Your task to perform on an android device: change your default location settings in chrome Image 0: 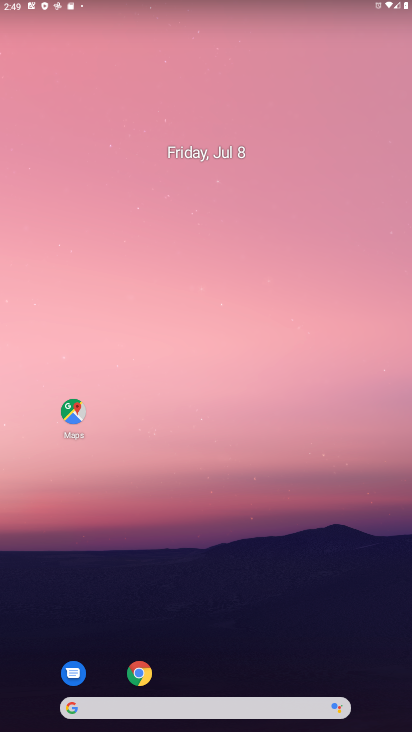
Step 0: click (136, 669)
Your task to perform on an android device: change your default location settings in chrome Image 1: 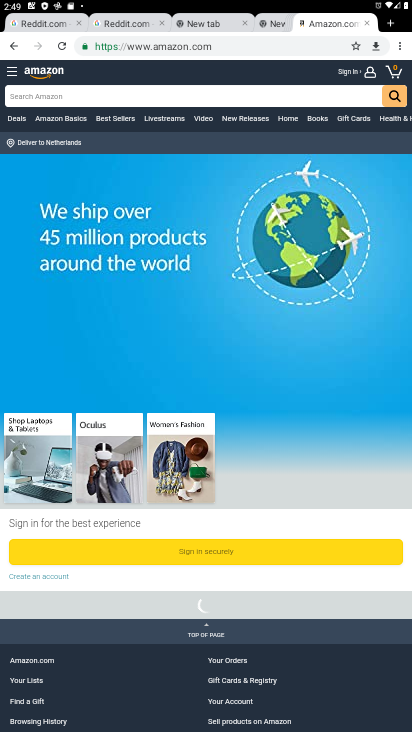
Step 1: press home button
Your task to perform on an android device: change your default location settings in chrome Image 2: 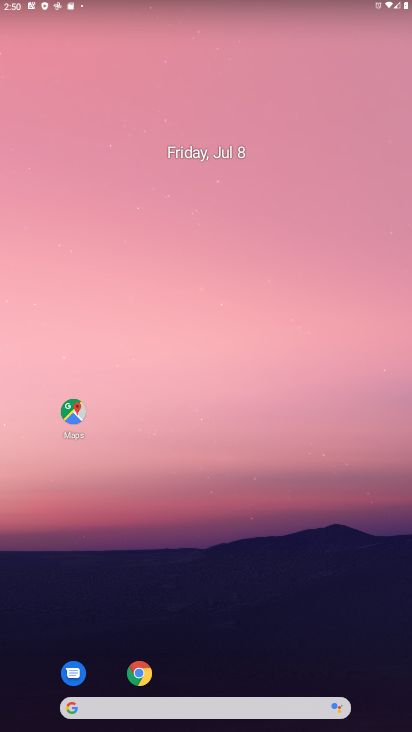
Step 2: drag from (356, 536) to (356, 252)
Your task to perform on an android device: change your default location settings in chrome Image 3: 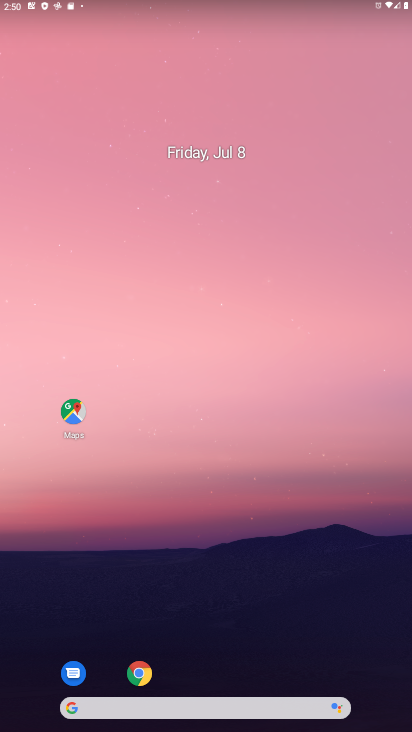
Step 3: click (138, 672)
Your task to perform on an android device: change your default location settings in chrome Image 4: 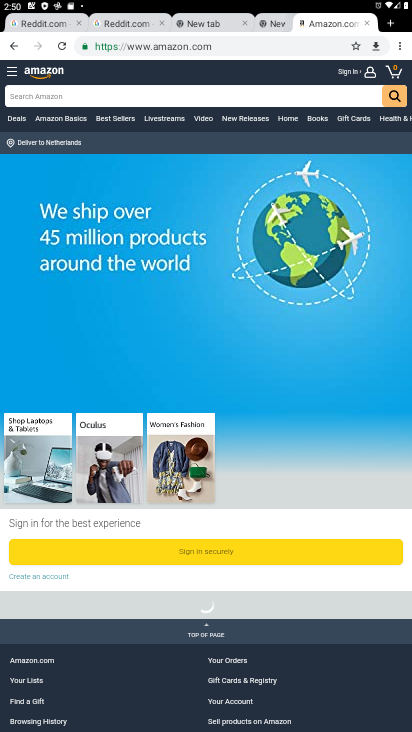
Step 4: task complete